Your task to perform on an android device: turn pop-ups off in chrome Image 0: 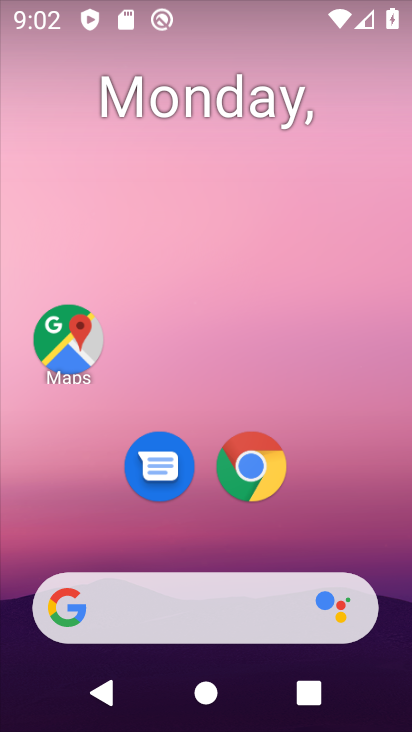
Step 0: drag from (321, 490) to (149, 72)
Your task to perform on an android device: turn pop-ups off in chrome Image 1: 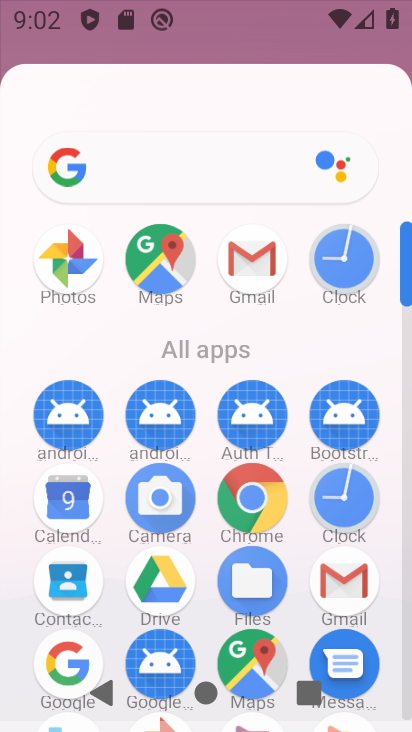
Step 1: click (263, 469)
Your task to perform on an android device: turn pop-ups off in chrome Image 2: 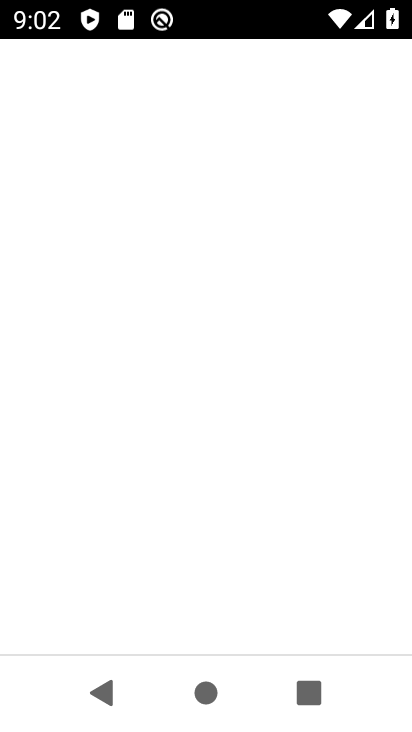
Step 2: click (263, 421)
Your task to perform on an android device: turn pop-ups off in chrome Image 3: 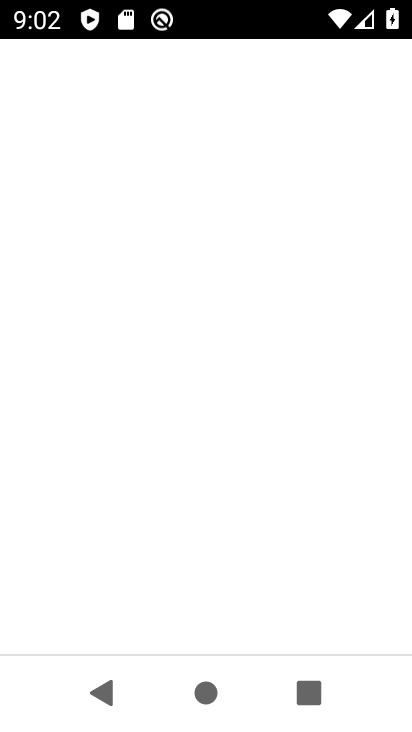
Step 3: click (263, 421)
Your task to perform on an android device: turn pop-ups off in chrome Image 4: 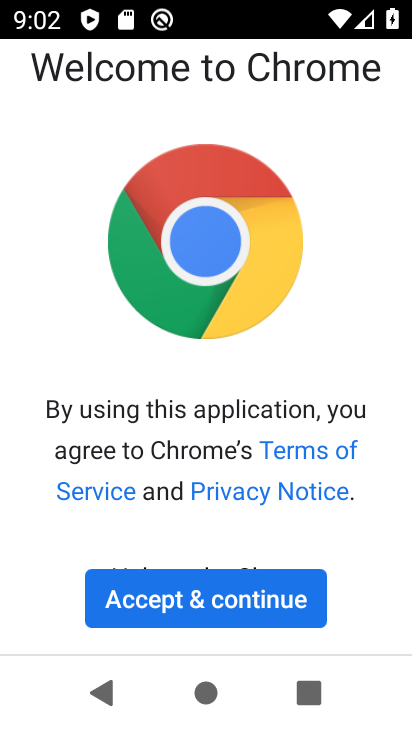
Step 4: click (237, 591)
Your task to perform on an android device: turn pop-ups off in chrome Image 5: 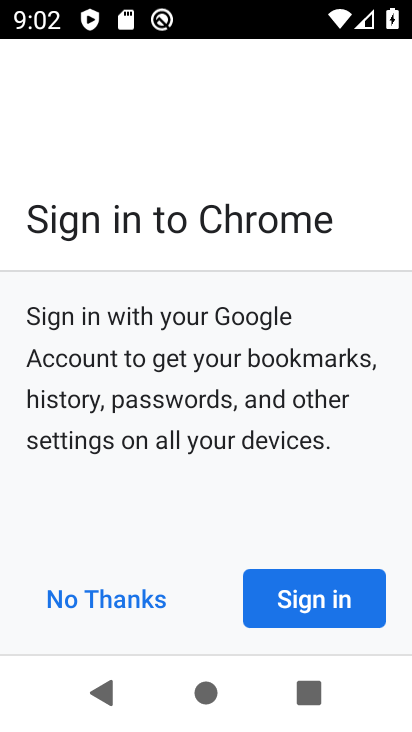
Step 5: click (238, 602)
Your task to perform on an android device: turn pop-ups off in chrome Image 6: 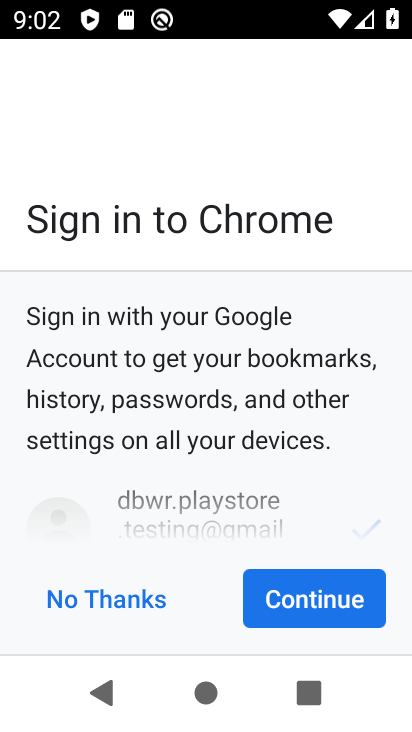
Step 6: click (238, 602)
Your task to perform on an android device: turn pop-ups off in chrome Image 7: 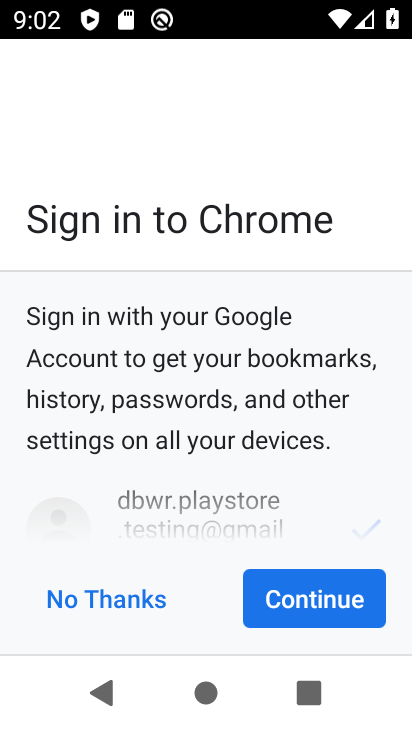
Step 7: click (292, 610)
Your task to perform on an android device: turn pop-ups off in chrome Image 8: 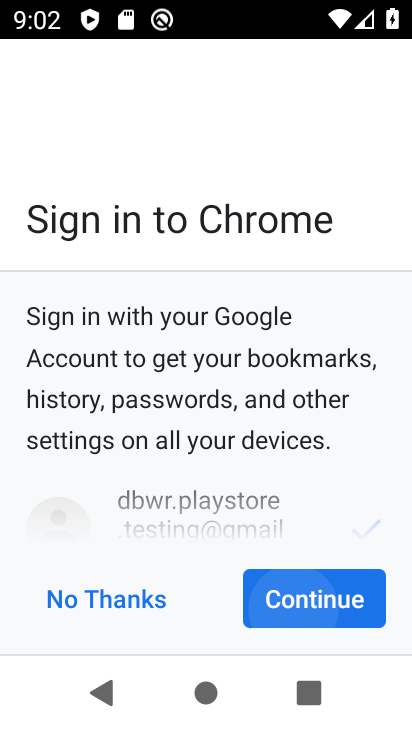
Step 8: click (297, 602)
Your task to perform on an android device: turn pop-ups off in chrome Image 9: 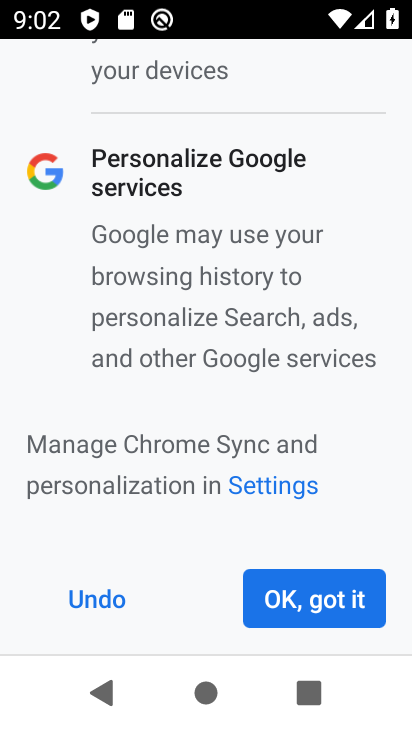
Step 9: click (309, 588)
Your task to perform on an android device: turn pop-ups off in chrome Image 10: 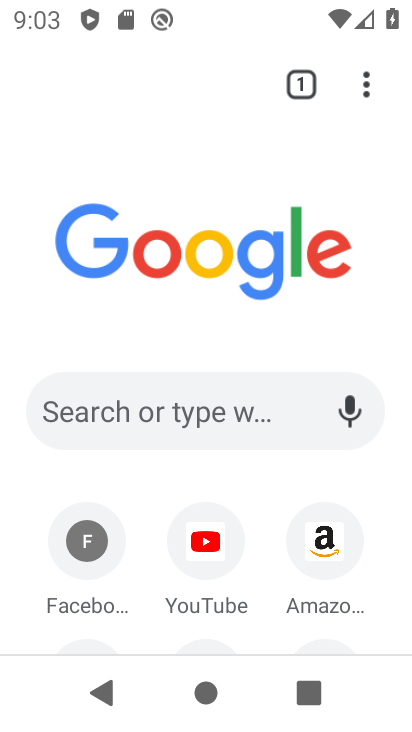
Step 10: drag from (370, 81) to (80, 526)
Your task to perform on an android device: turn pop-ups off in chrome Image 11: 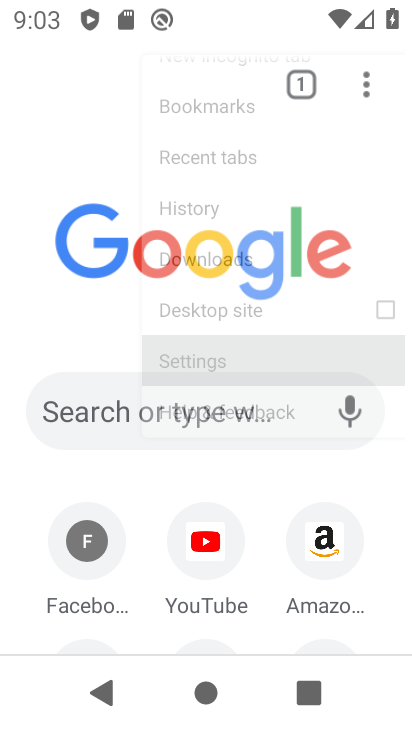
Step 11: click (80, 526)
Your task to perform on an android device: turn pop-ups off in chrome Image 12: 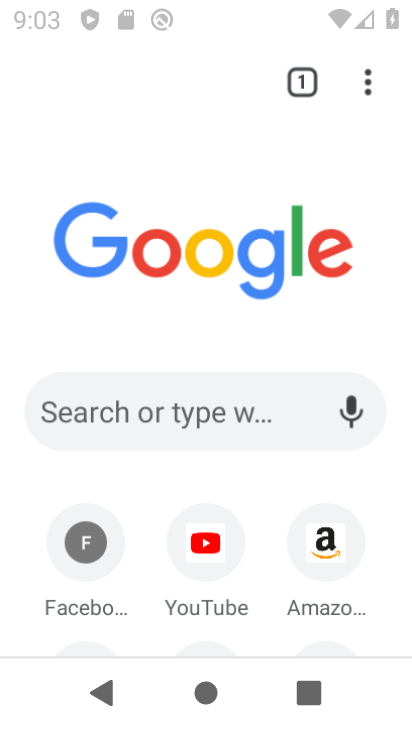
Step 12: click (74, 523)
Your task to perform on an android device: turn pop-ups off in chrome Image 13: 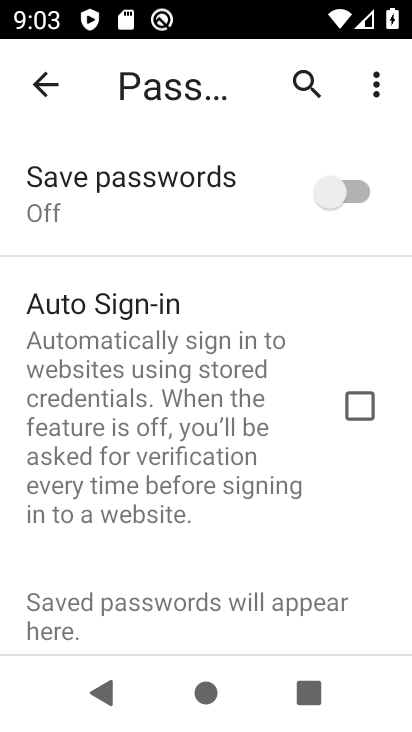
Step 13: click (31, 85)
Your task to perform on an android device: turn pop-ups off in chrome Image 14: 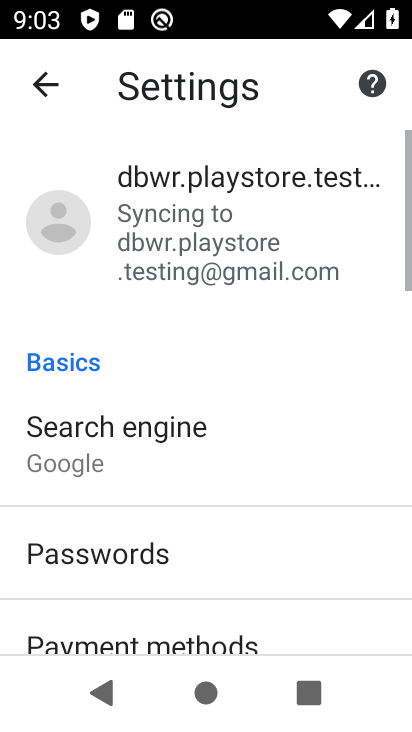
Step 14: drag from (157, 540) to (160, 139)
Your task to perform on an android device: turn pop-ups off in chrome Image 15: 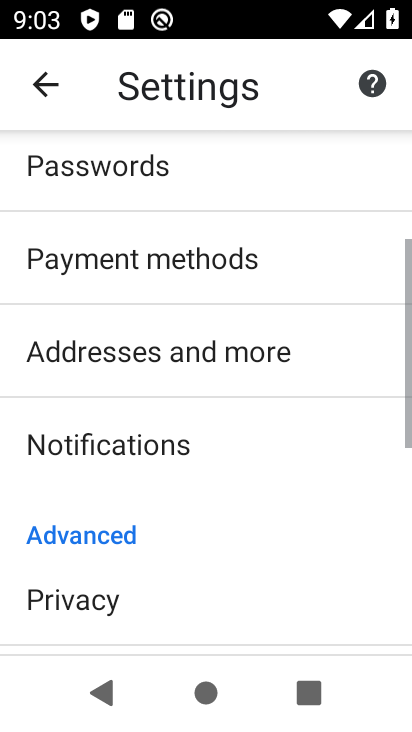
Step 15: drag from (214, 464) to (150, 165)
Your task to perform on an android device: turn pop-ups off in chrome Image 16: 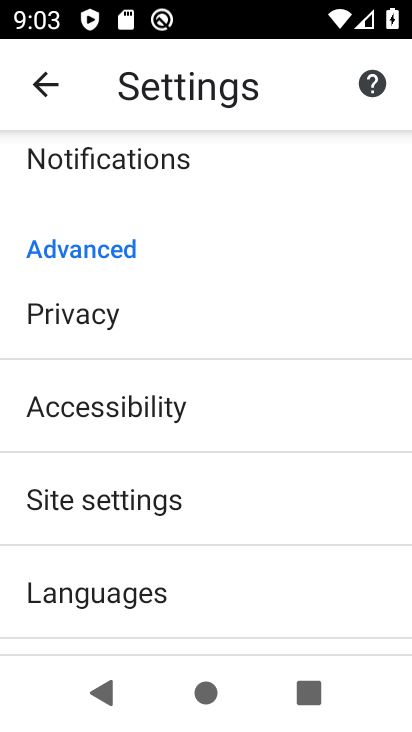
Step 16: click (69, 494)
Your task to perform on an android device: turn pop-ups off in chrome Image 17: 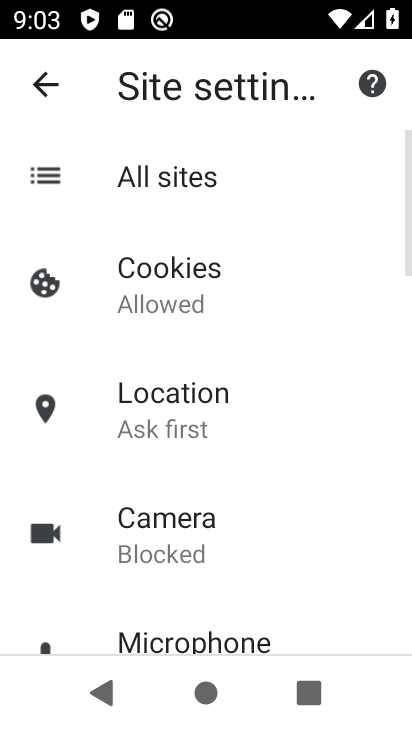
Step 17: drag from (252, 489) to (118, 71)
Your task to perform on an android device: turn pop-ups off in chrome Image 18: 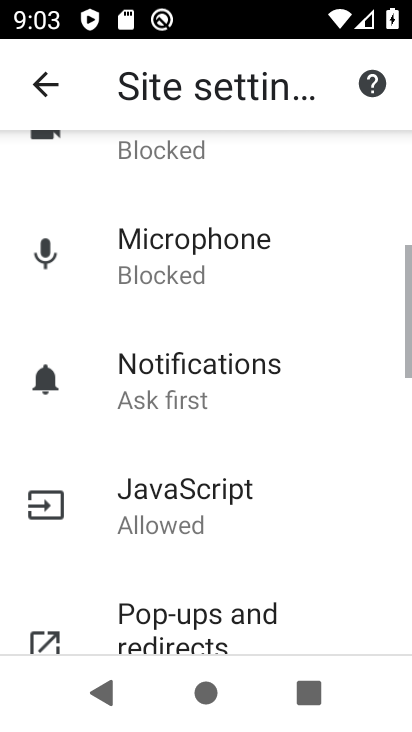
Step 18: drag from (213, 428) to (150, 44)
Your task to perform on an android device: turn pop-ups off in chrome Image 19: 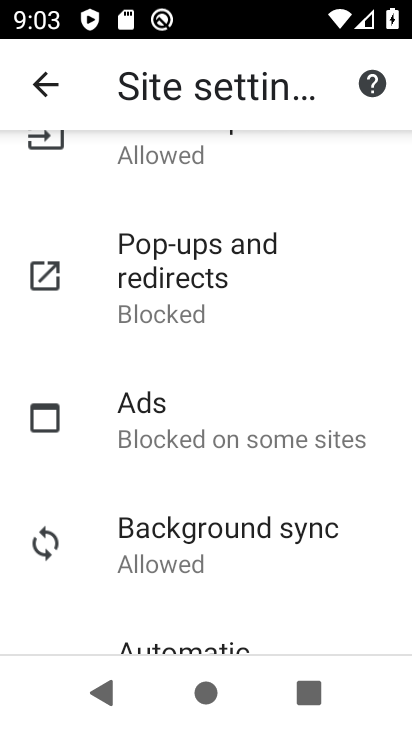
Step 19: click (153, 285)
Your task to perform on an android device: turn pop-ups off in chrome Image 20: 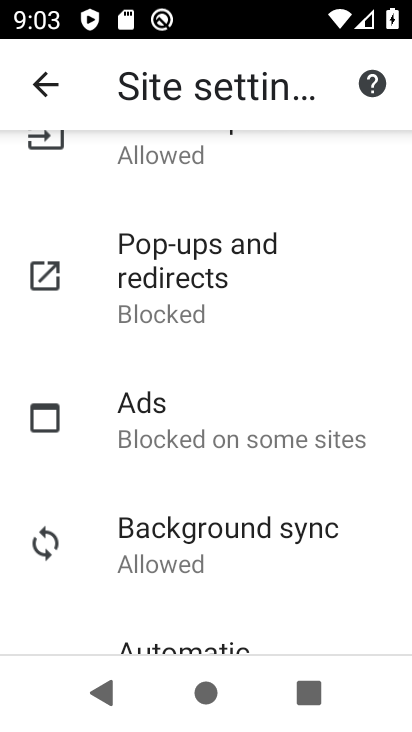
Step 20: click (153, 284)
Your task to perform on an android device: turn pop-ups off in chrome Image 21: 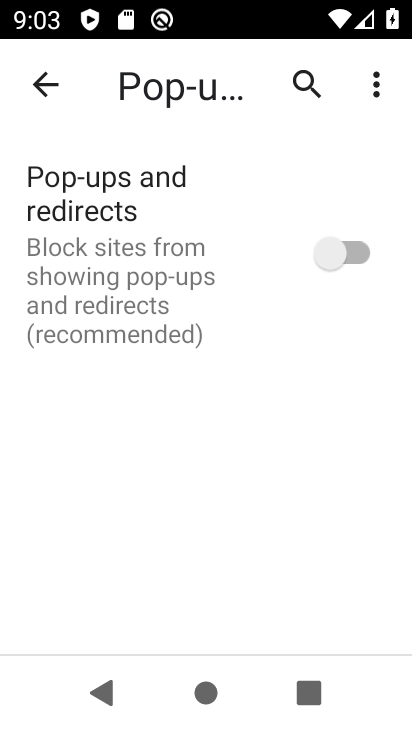
Step 21: task complete